Your task to perform on an android device: snooze an email in the gmail app Image 0: 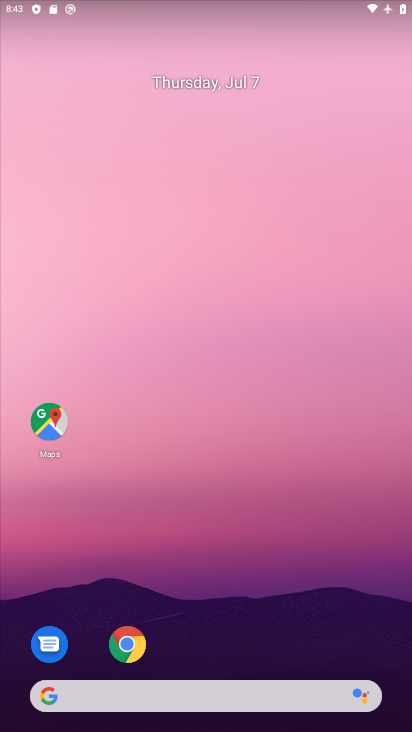
Step 0: drag from (273, 687) to (232, 377)
Your task to perform on an android device: snooze an email in the gmail app Image 1: 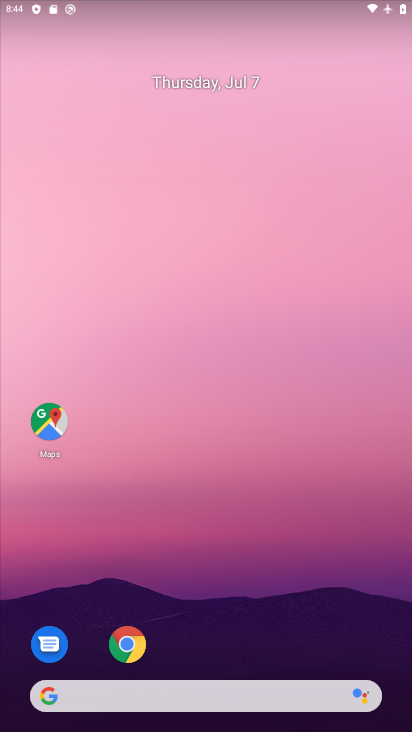
Step 1: drag from (250, 640) to (192, 255)
Your task to perform on an android device: snooze an email in the gmail app Image 2: 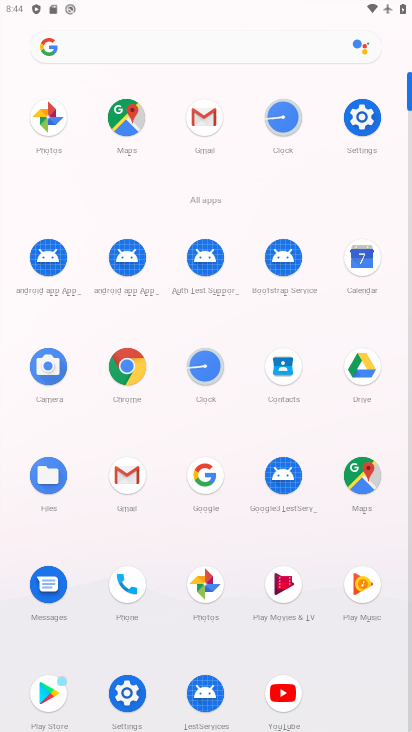
Step 2: click (272, 22)
Your task to perform on an android device: snooze an email in the gmail app Image 3: 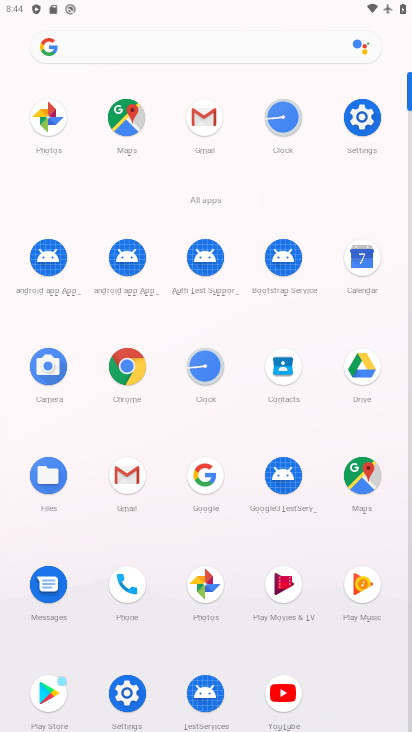
Step 3: drag from (280, 460) to (285, 2)
Your task to perform on an android device: snooze an email in the gmail app Image 4: 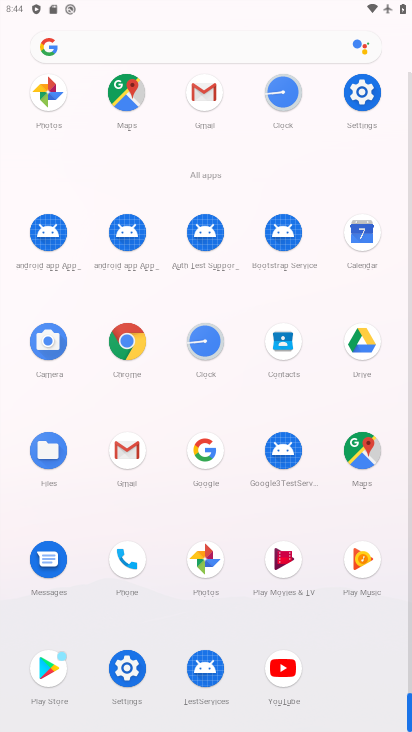
Step 4: click (121, 472)
Your task to perform on an android device: snooze an email in the gmail app Image 5: 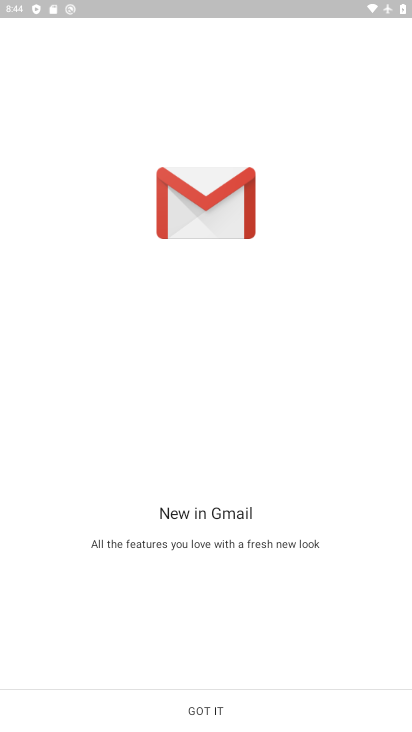
Step 5: click (224, 699)
Your task to perform on an android device: snooze an email in the gmail app Image 6: 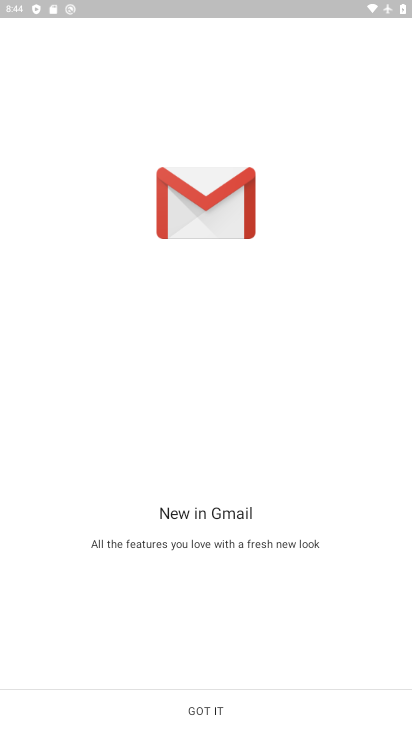
Step 6: click (224, 699)
Your task to perform on an android device: snooze an email in the gmail app Image 7: 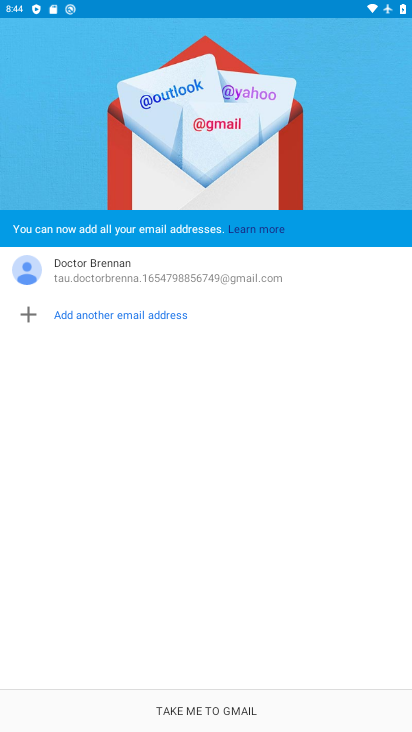
Step 7: click (227, 700)
Your task to perform on an android device: snooze an email in the gmail app Image 8: 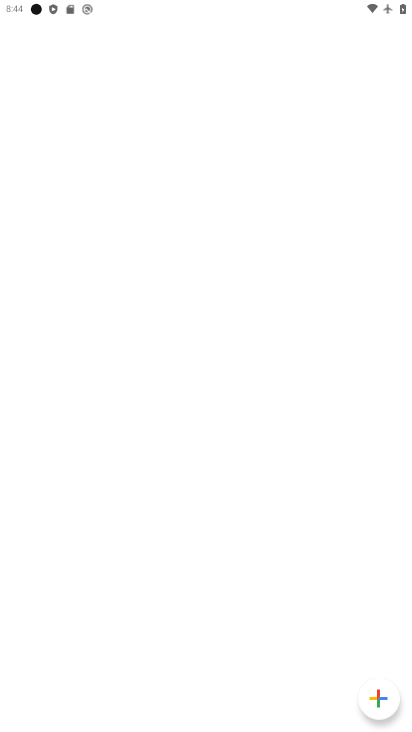
Step 8: click (232, 702)
Your task to perform on an android device: snooze an email in the gmail app Image 9: 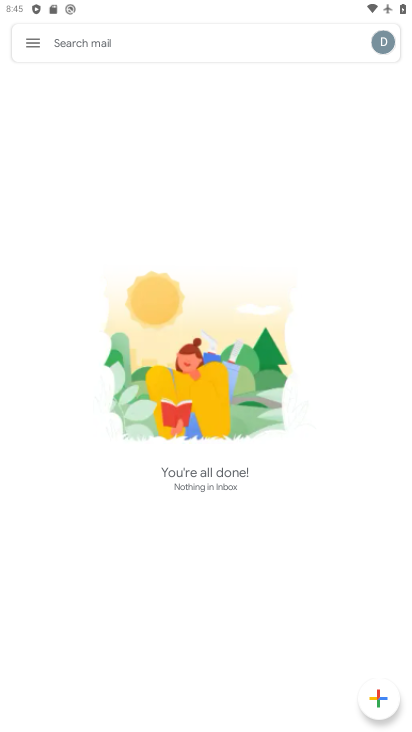
Step 9: click (36, 40)
Your task to perform on an android device: snooze an email in the gmail app Image 10: 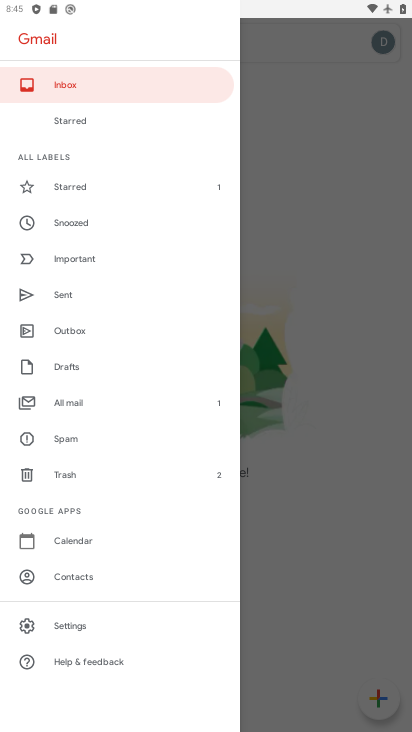
Step 10: click (71, 403)
Your task to perform on an android device: snooze an email in the gmail app Image 11: 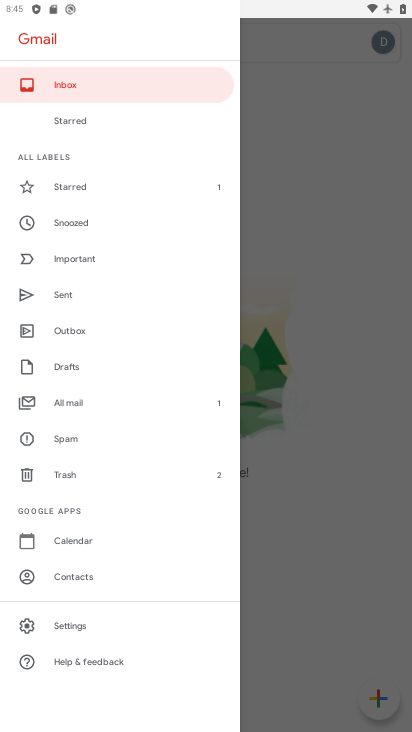
Step 11: click (71, 402)
Your task to perform on an android device: snooze an email in the gmail app Image 12: 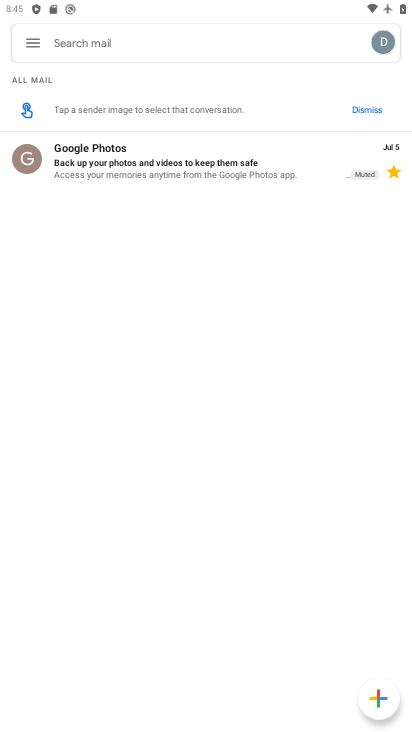
Step 12: click (181, 173)
Your task to perform on an android device: snooze an email in the gmail app Image 13: 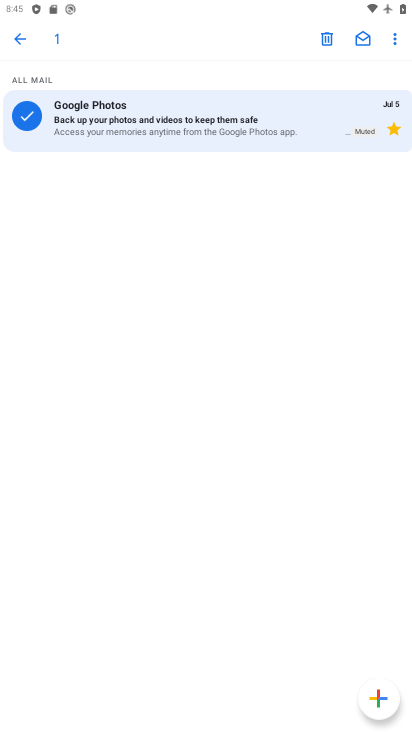
Step 13: click (393, 39)
Your task to perform on an android device: snooze an email in the gmail app Image 14: 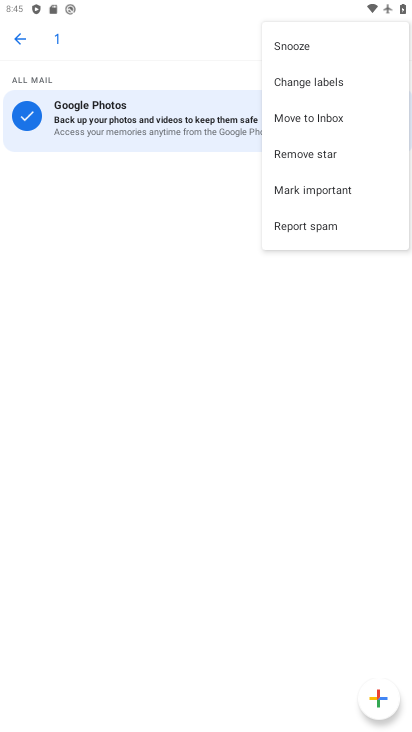
Step 14: click (393, 39)
Your task to perform on an android device: snooze an email in the gmail app Image 15: 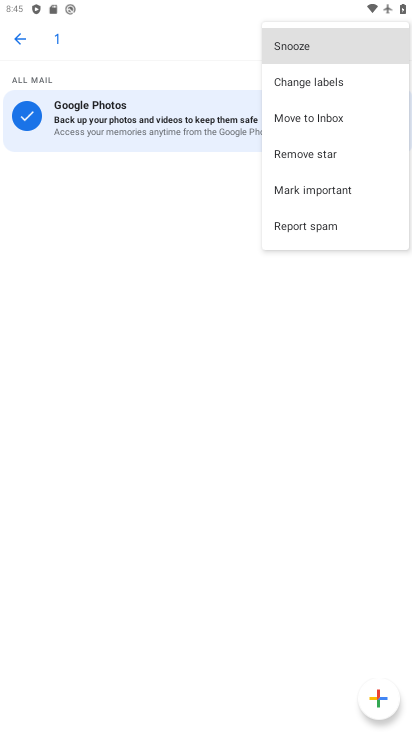
Step 15: click (297, 46)
Your task to perform on an android device: snooze an email in the gmail app Image 16: 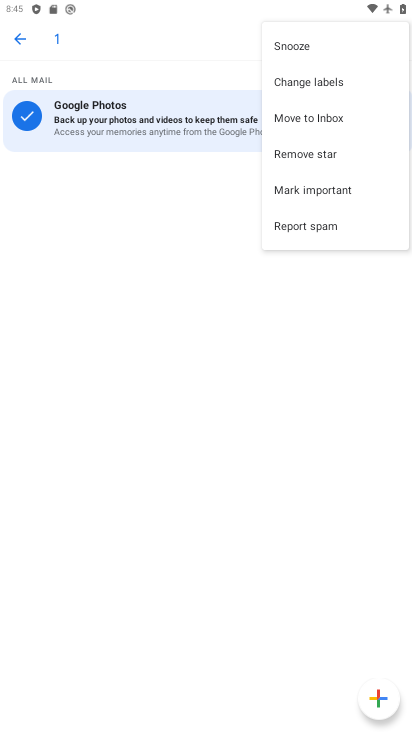
Step 16: click (297, 46)
Your task to perform on an android device: snooze an email in the gmail app Image 17: 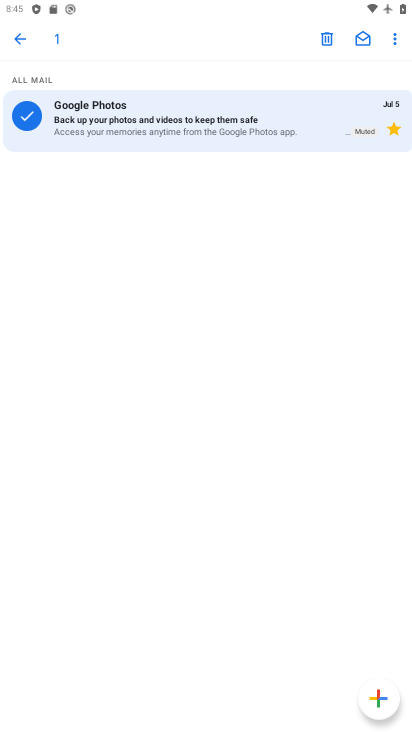
Step 17: click (389, 41)
Your task to perform on an android device: snooze an email in the gmail app Image 18: 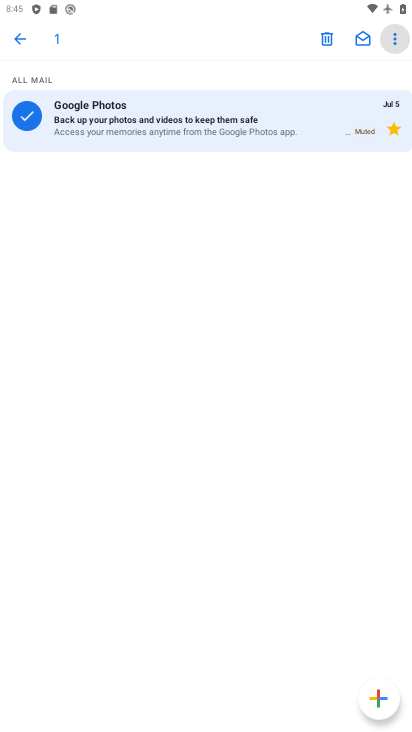
Step 18: click (390, 40)
Your task to perform on an android device: snooze an email in the gmail app Image 19: 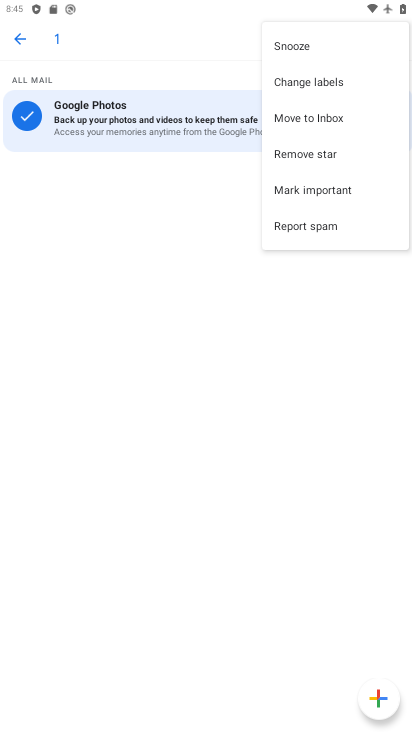
Step 19: click (308, 50)
Your task to perform on an android device: snooze an email in the gmail app Image 20: 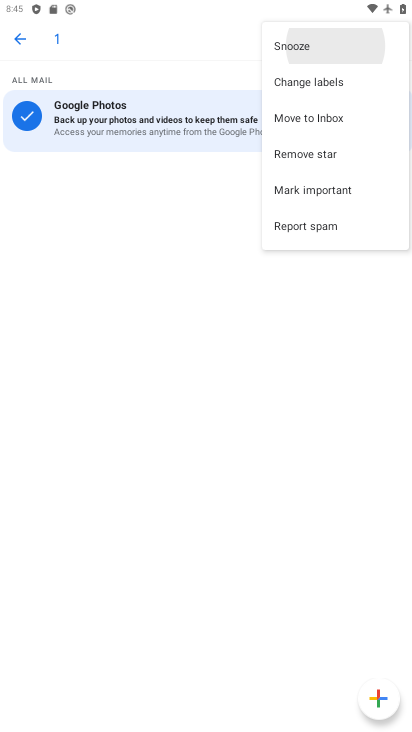
Step 20: click (307, 49)
Your task to perform on an android device: snooze an email in the gmail app Image 21: 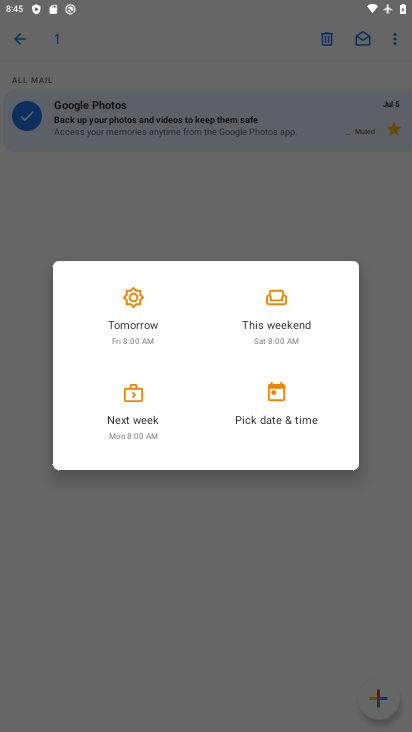
Step 21: click (139, 311)
Your task to perform on an android device: snooze an email in the gmail app Image 22: 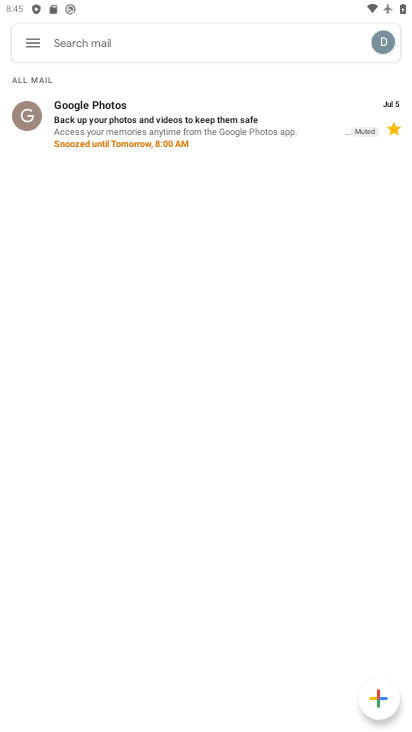
Step 22: click (139, 311)
Your task to perform on an android device: snooze an email in the gmail app Image 23: 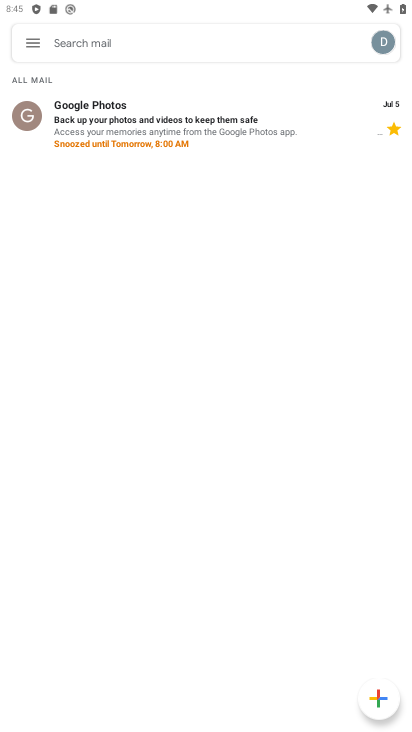
Step 23: click (136, 323)
Your task to perform on an android device: snooze an email in the gmail app Image 24: 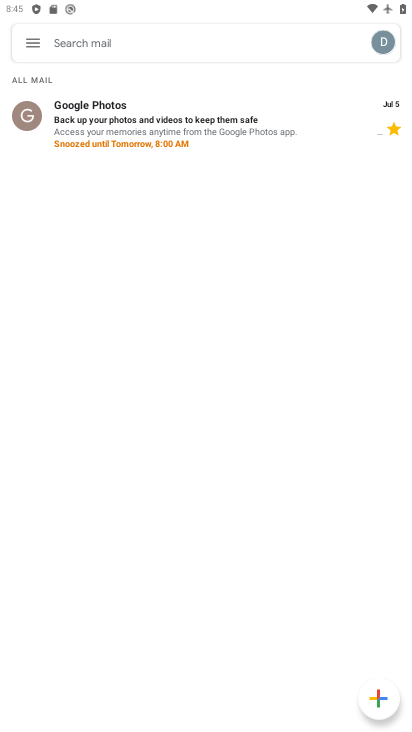
Step 24: click (138, 324)
Your task to perform on an android device: snooze an email in the gmail app Image 25: 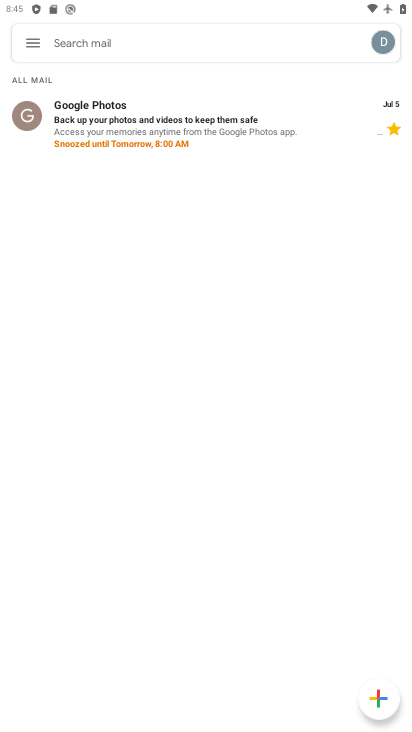
Step 25: task complete